Your task to perform on an android device: Open Google Maps and go to "Timeline" Image 0: 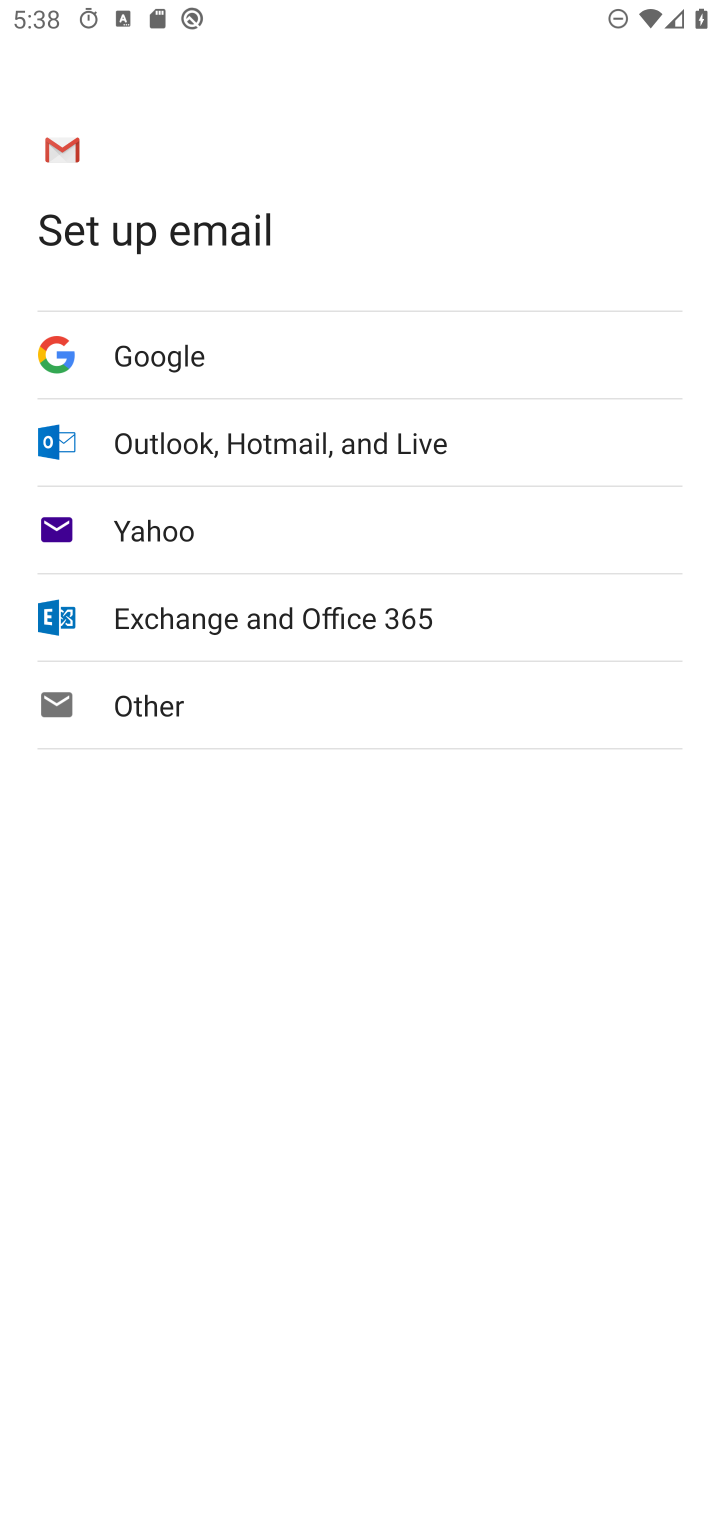
Step 0: press home button
Your task to perform on an android device: Open Google Maps and go to "Timeline" Image 1: 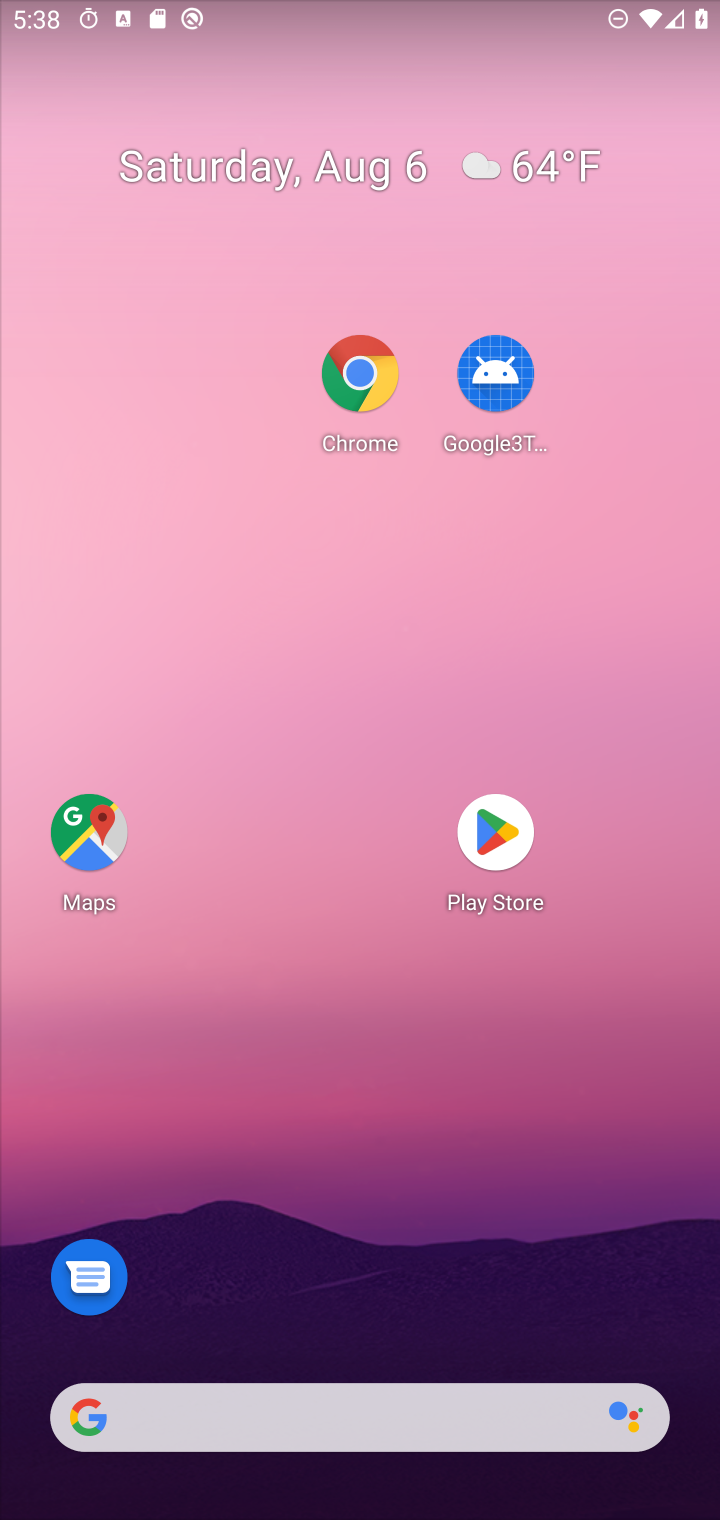
Step 1: click (243, 1406)
Your task to perform on an android device: Open Google Maps and go to "Timeline" Image 2: 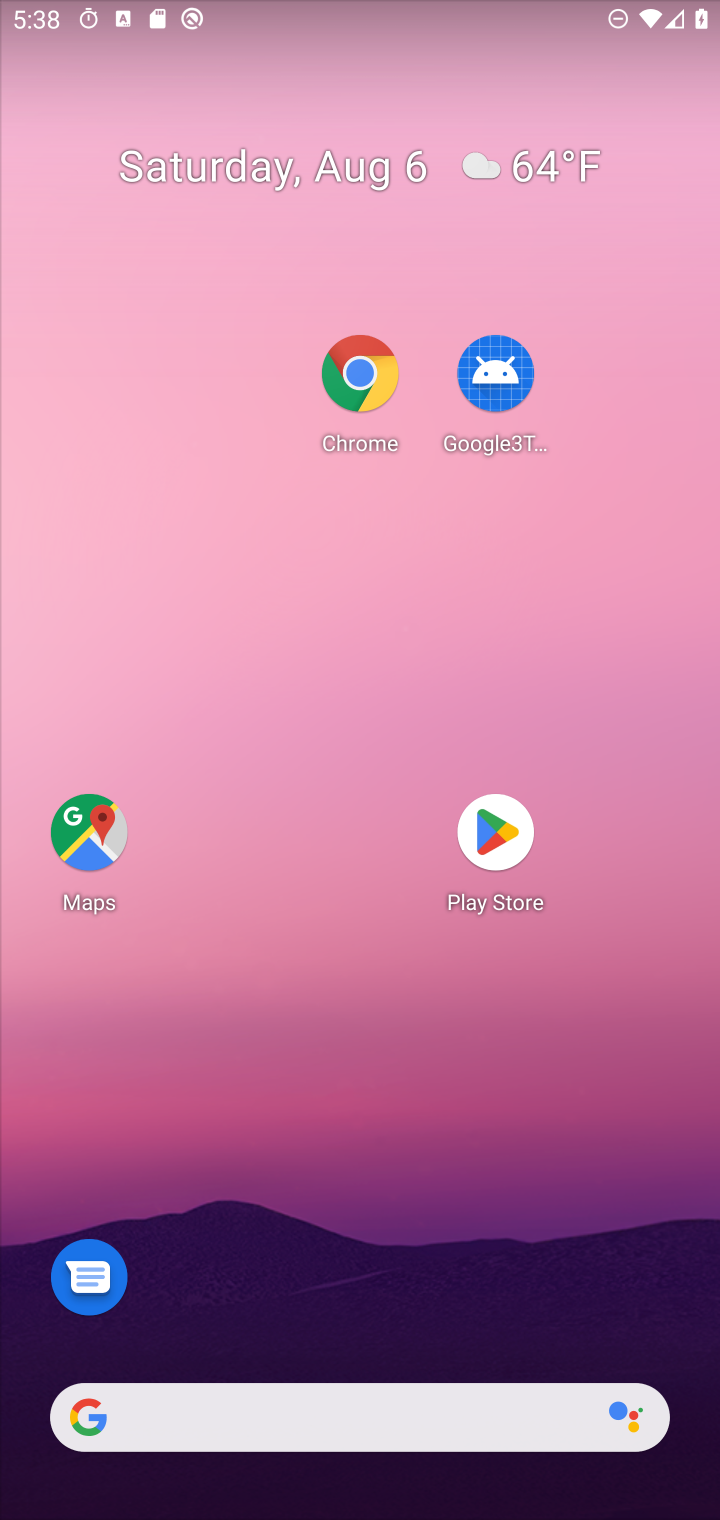
Step 2: drag from (243, 1406) to (273, 252)
Your task to perform on an android device: Open Google Maps and go to "Timeline" Image 3: 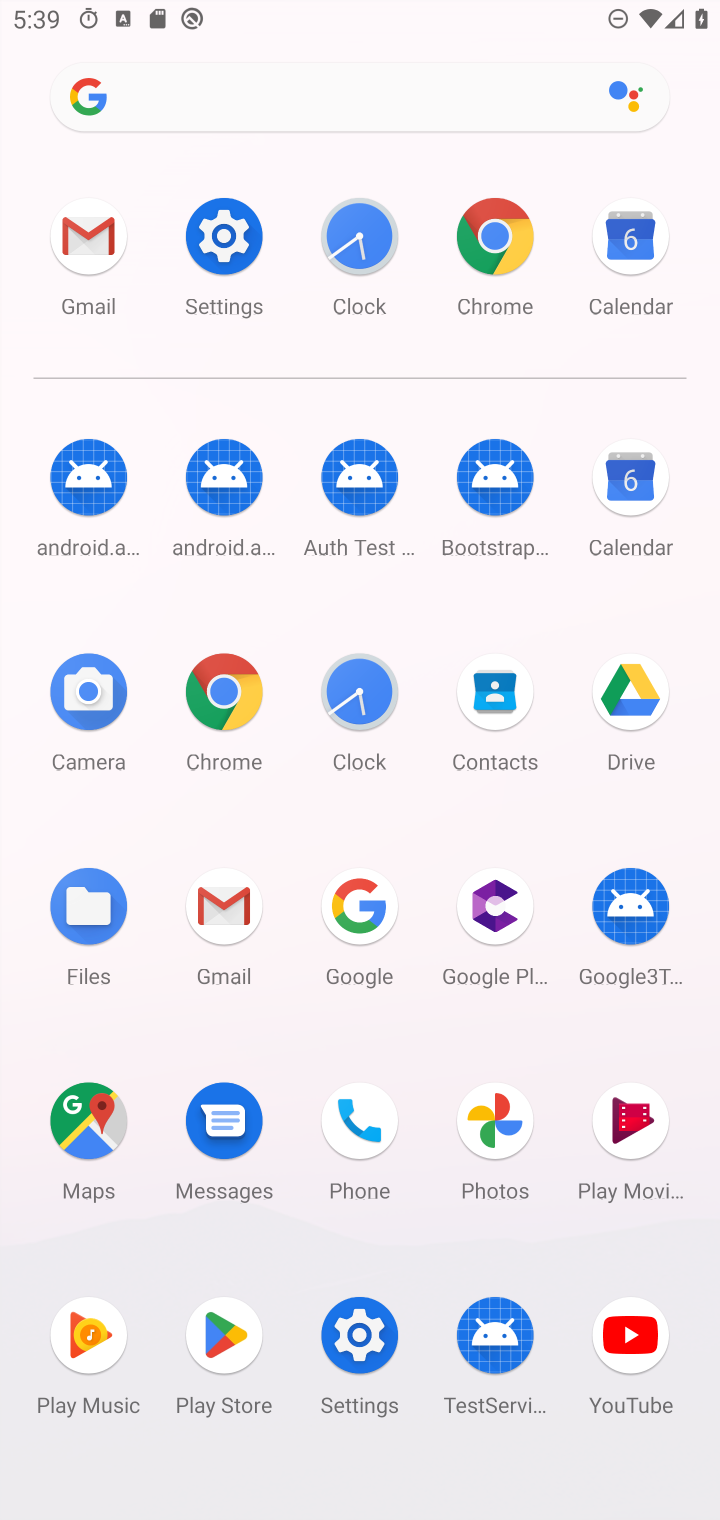
Step 3: click (101, 1144)
Your task to perform on an android device: Open Google Maps and go to "Timeline" Image 4: 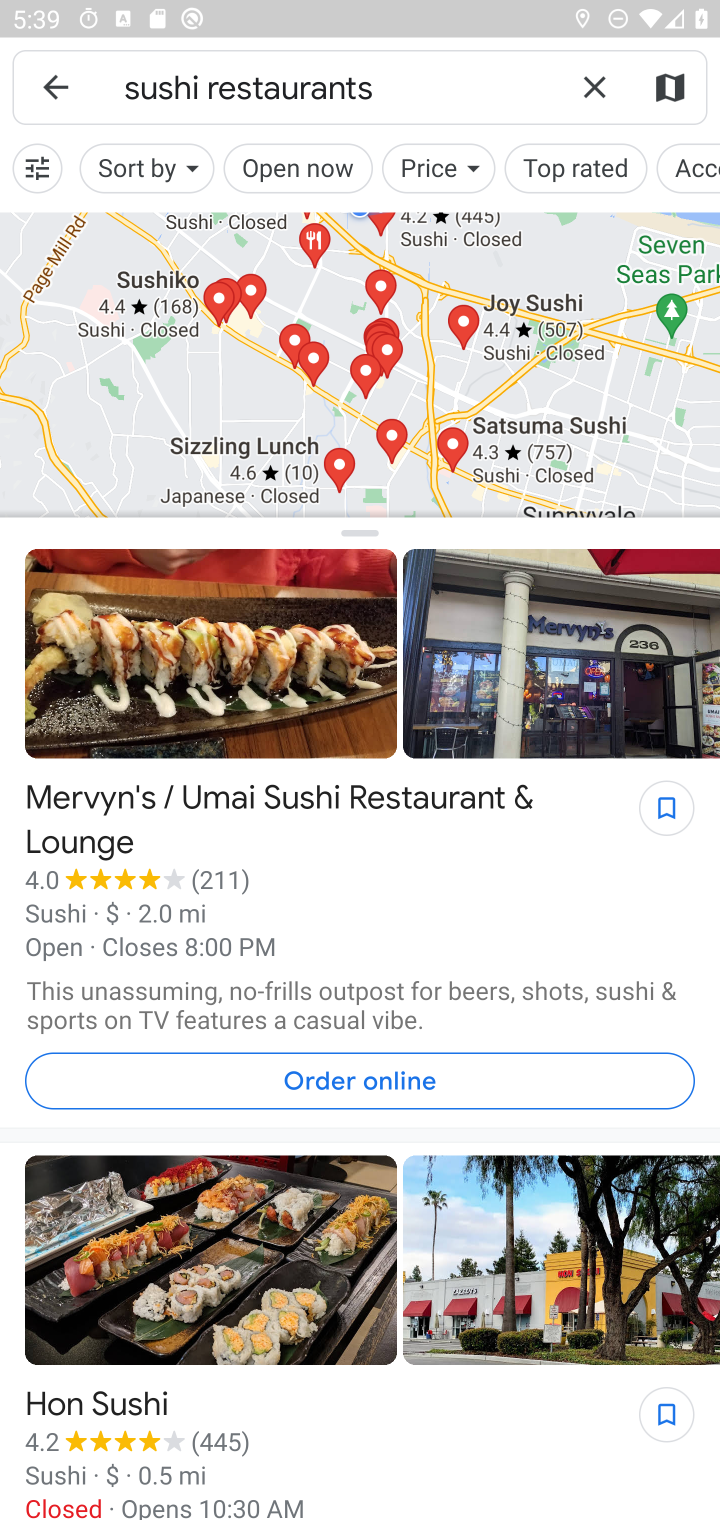
Step 4: press back button
Your task to perform on an android device: Open Google Maps and go to "Timeline" Image 5: 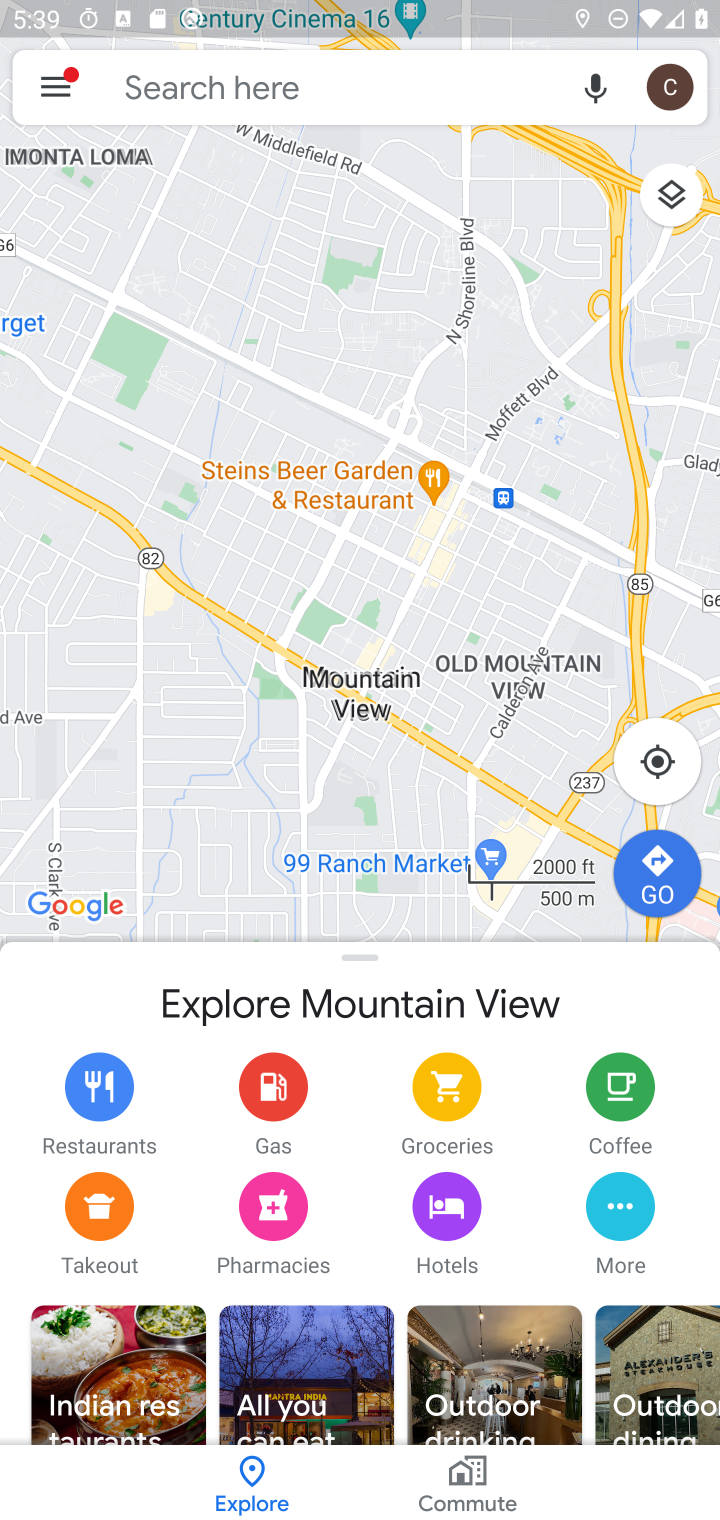
Step 5: click (46, 76)
Your task to perform on an android device: Open Google Maps and go to "Timeline" Image 6: 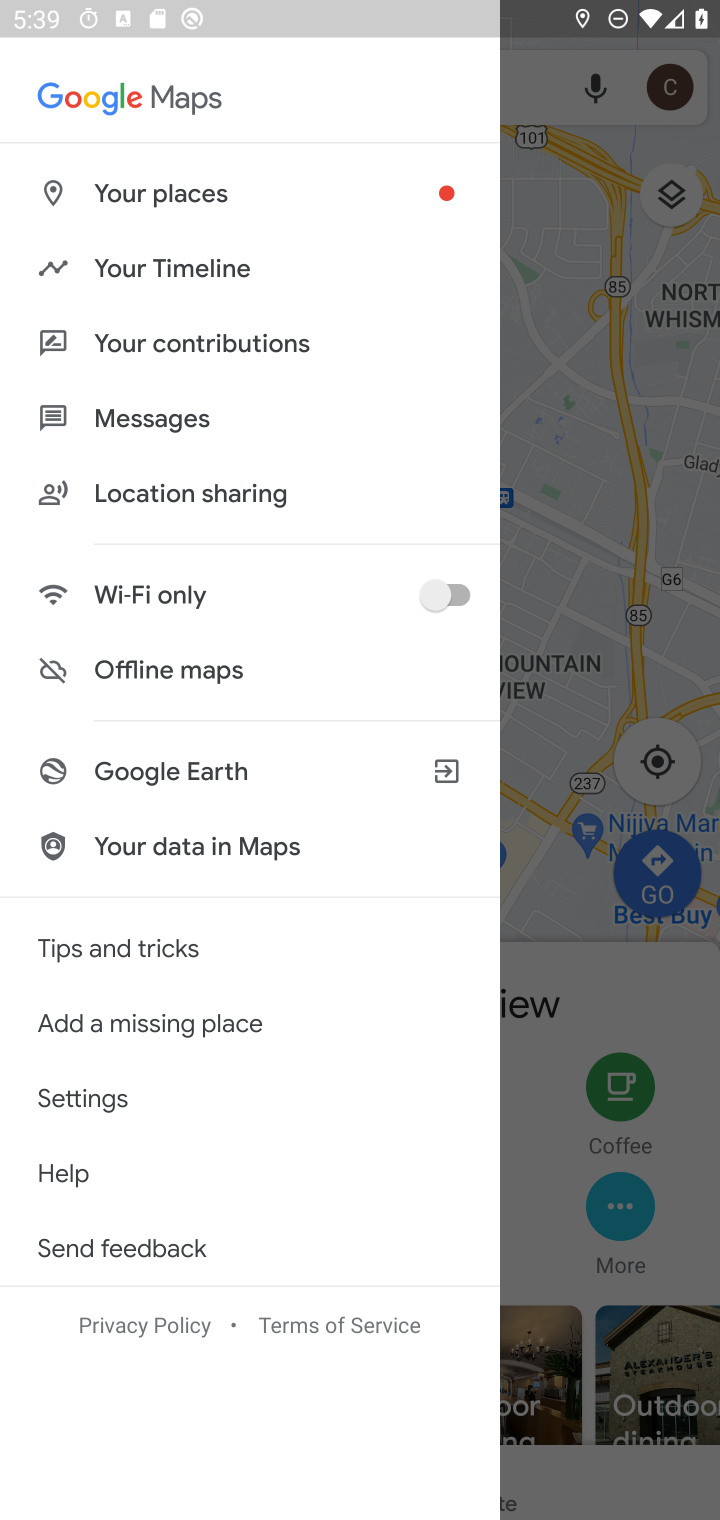
Step 6: click (284, 267)
Your task to perform on an android device: Open Google Maps and go to "Timeline" Image 7: 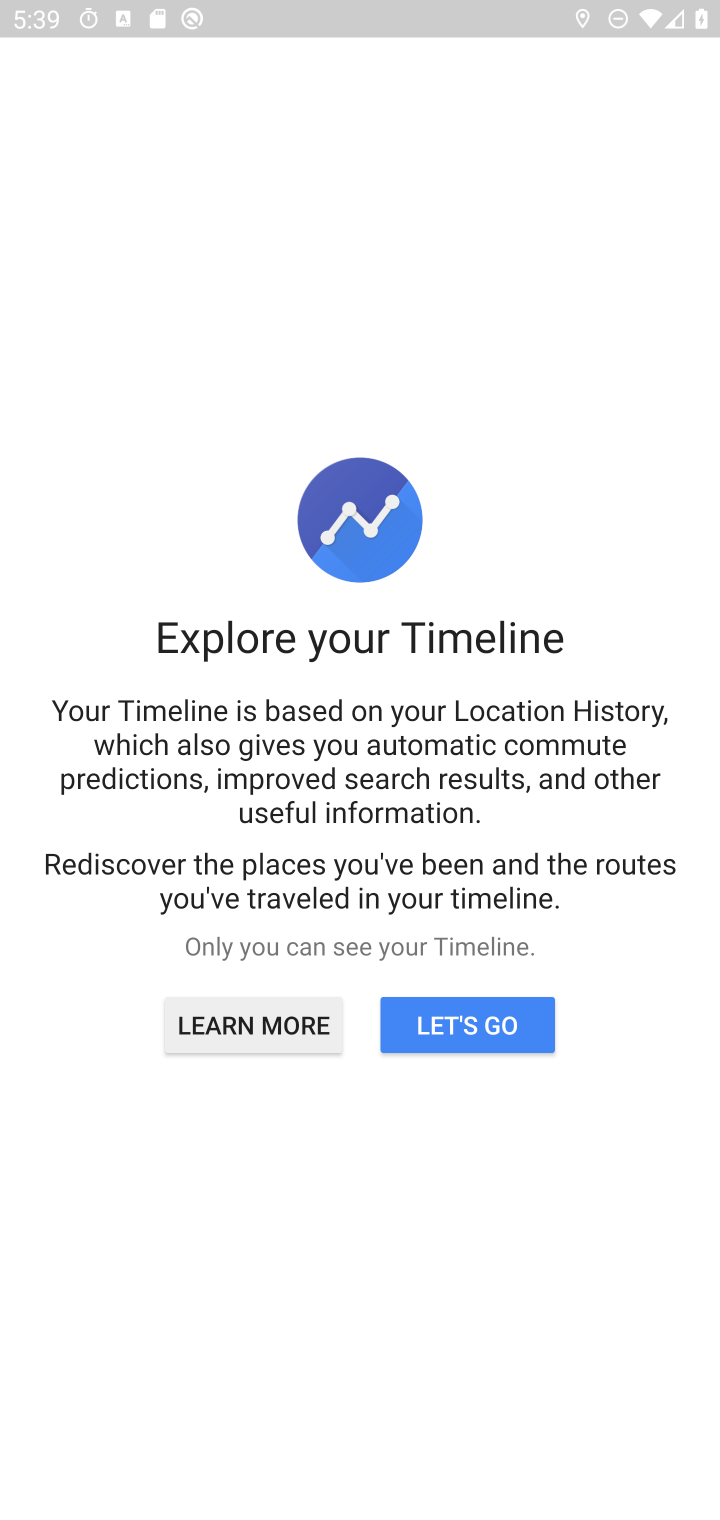
Step 7: click (482, 1017)
Your task to perform on an android device: Open Google Maps and go to "Timeline" Image 8: 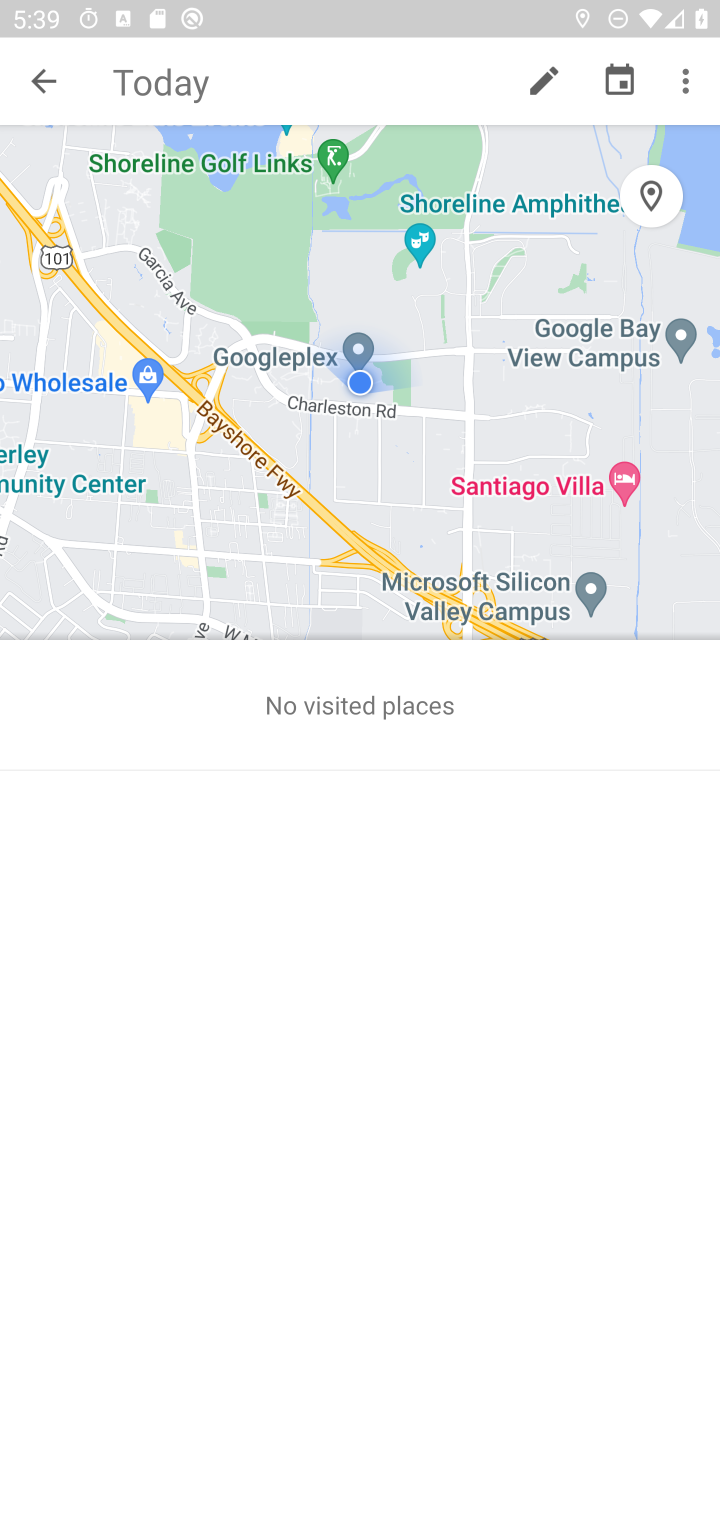
Step 8: task complete